Your task to perform on an android device: see sites visited before in the chrome app Image 0: 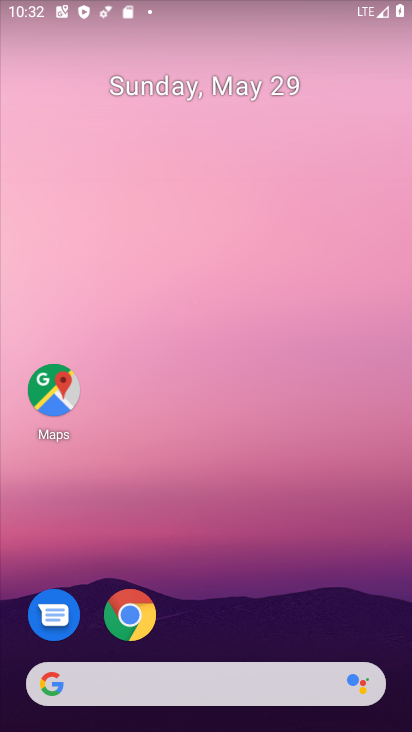
Step 0: drag from (372, 622) to (370, 234)
Your task to perform on an android device: see sites visited before in the chrome app Image 1: 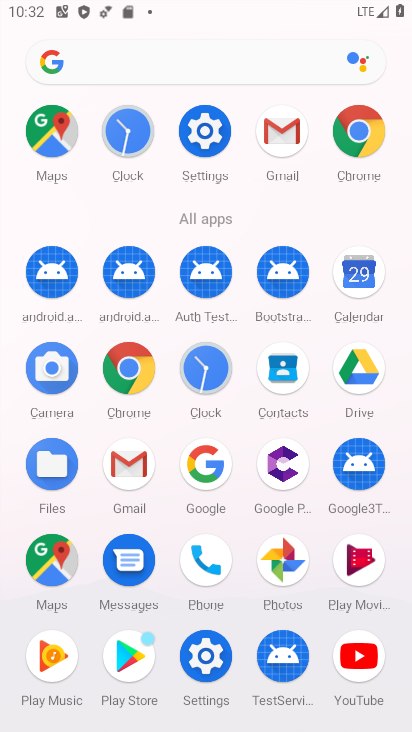
Step 1: click (140, 389)
Your task to perform on an android device: see sites visited before in the chrome app Image 2: 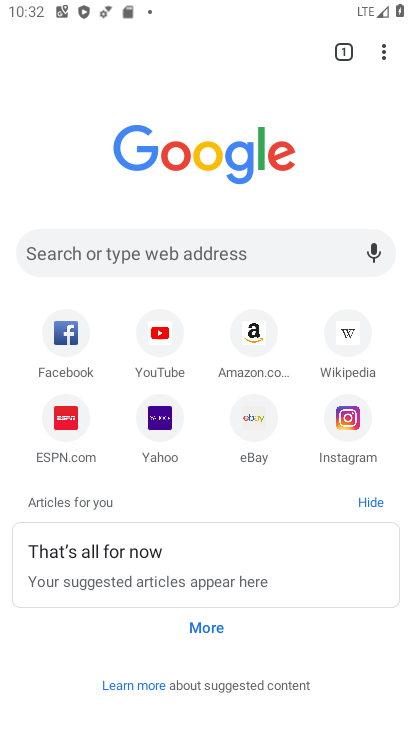
Step 2: click (384, 59)
Your task to perform on an android device: see sites visited before in the chrome app Image 3: 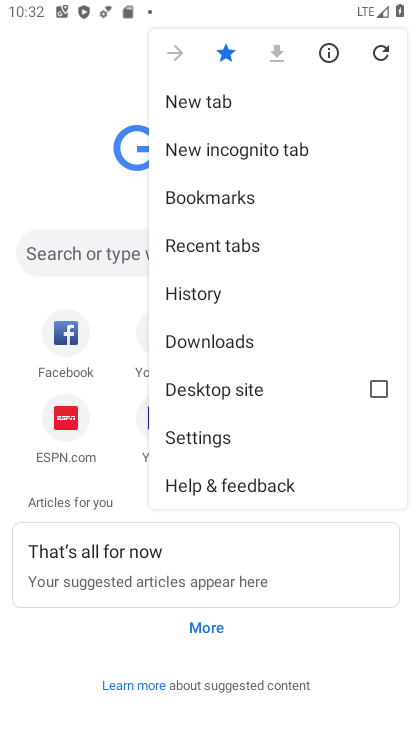
Step 3: click (231, 288)
Your task to perform on an android device: see sites visited before in the chrome app Image 4: 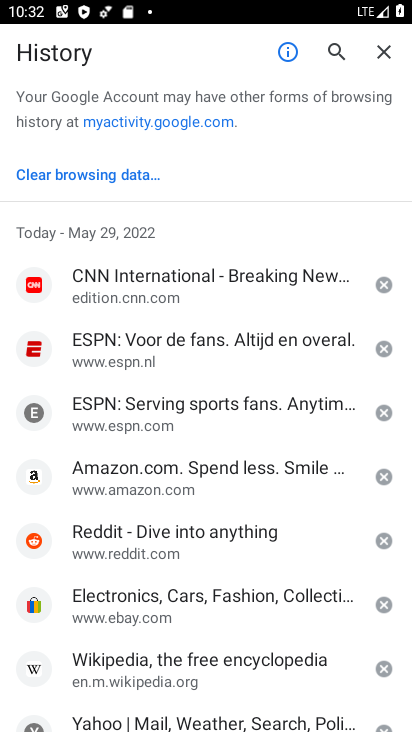
Step 4: task complete